Your task to perform on an android device: turn on javascript in the chrome app Image 0: 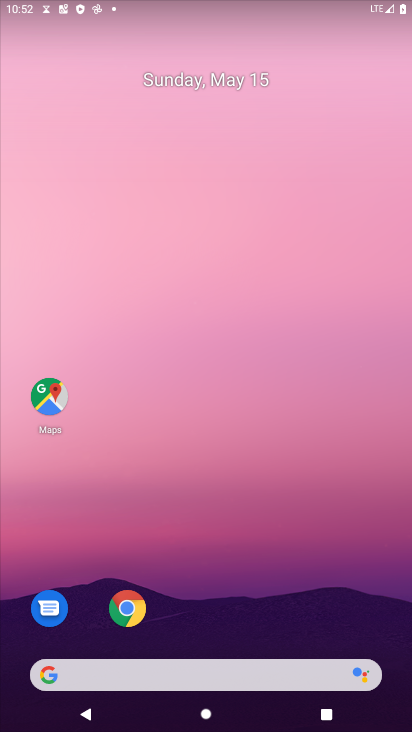
Step 0: drag from (258, 590) to (198, 191)
Your task to perform on an android device: turn on javascript in the chrome app Image 1: 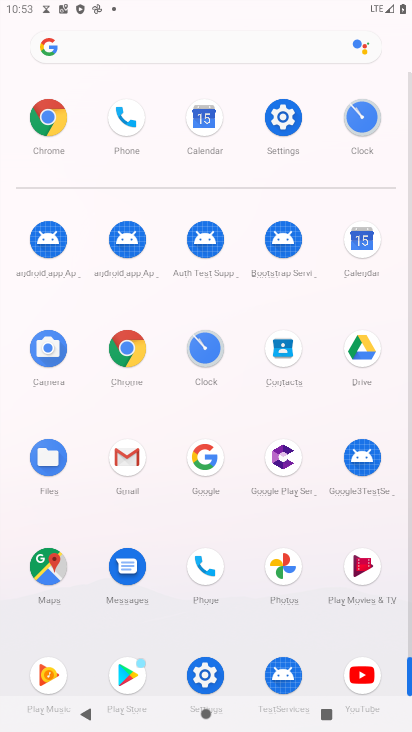
Step 1: click (42, 128)
Your task to perform on an android device: turn on javascript in the chrome app Image 2: 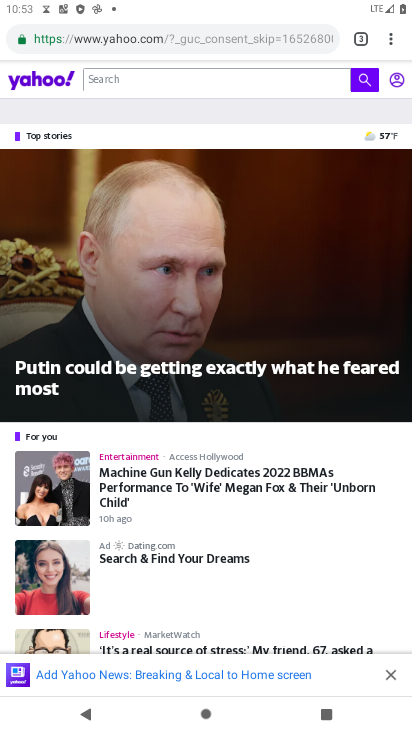
Step 2: click (391, 35)
Your task to perform on an android device: turn on javascript in the chrome app Image 3: 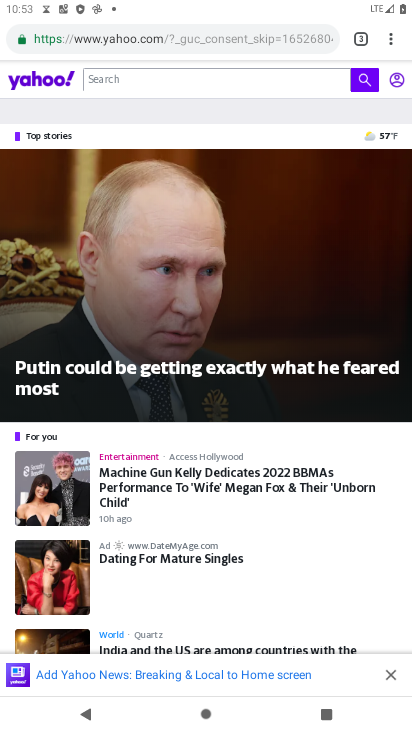
Step 3: drag from (399, 39) to (255, 472)
Your task to perform on an android device: turn on javascript in the chrome app Image 4: 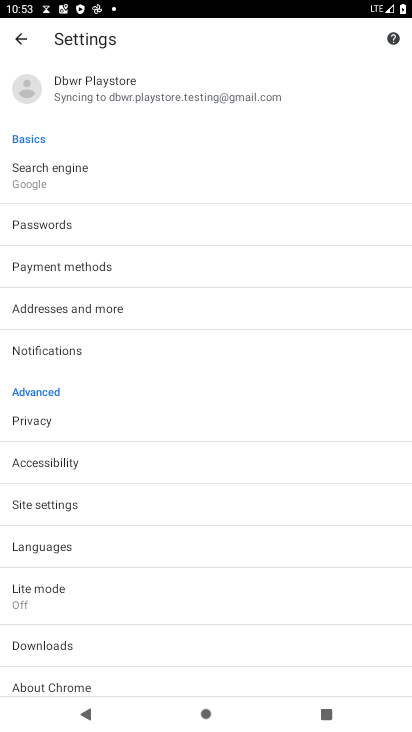
Step 4: click (121, 505)
Your task to perform on an android device: turn on javascript in the chrome app Image 5: 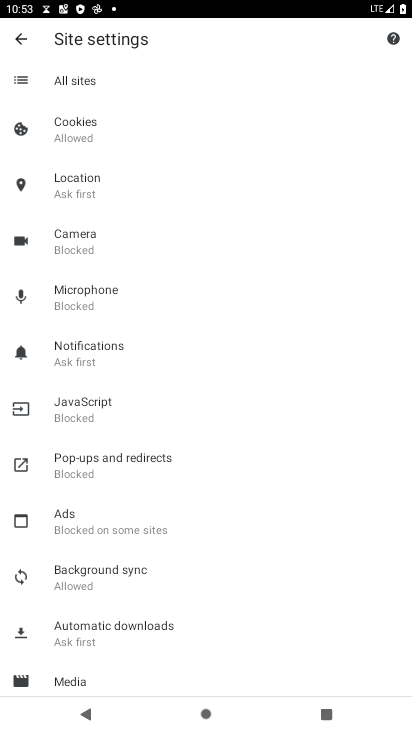
Step 5: click (88, 417)
Your task to perform on an android device: turn on javascript in the chrome app Image 6: 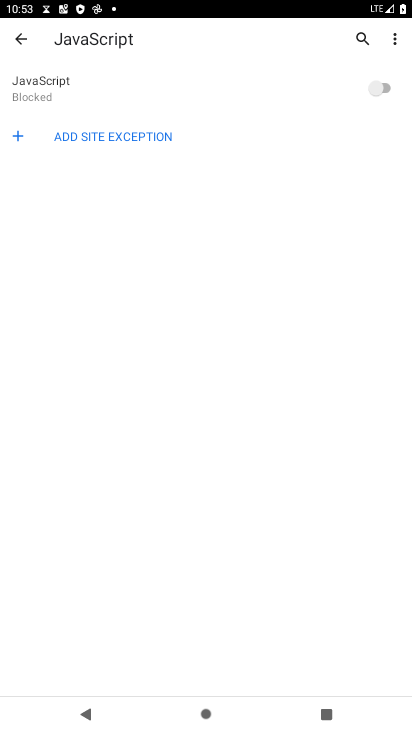
Step 6: click (386, 82)
Your task to perform on an android device: turn on javascript in the chrome app Image 7: 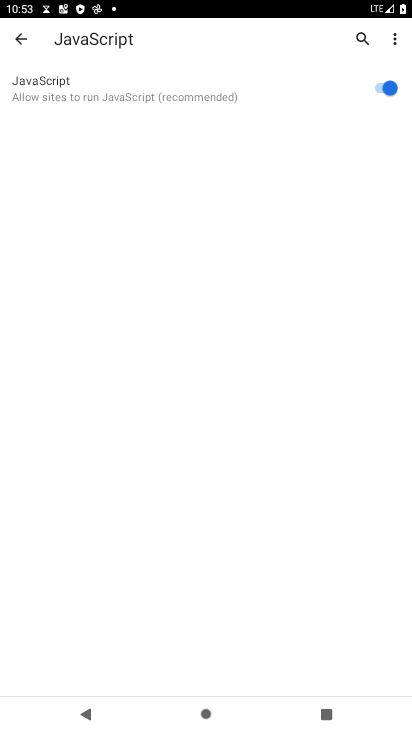
Step 7: task complete